Your task to perform on an android device: turn notification dots off Image 0: 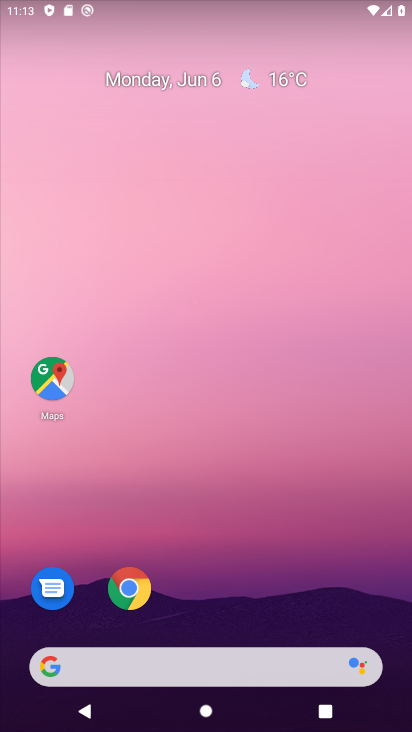
Step 0: drag from (268, 588) to (279, 7)
Your task to perform on an android device: turn notification dots off Image 1: 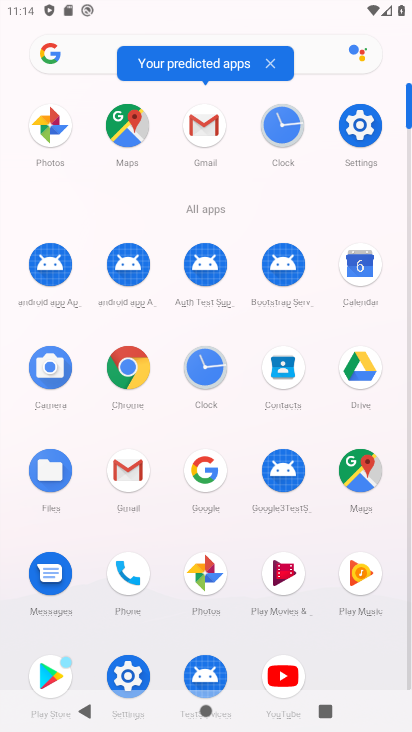
Step 1: click (362, 124)
Your task to perform on an android device: turn notification dots off Image 2: 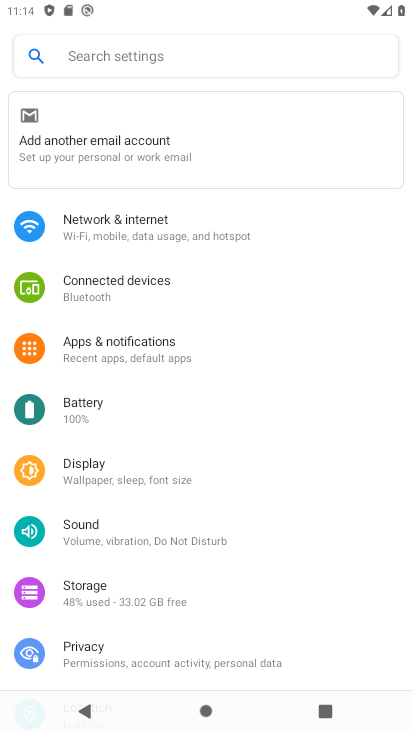
Step 2: click (166, 352)
Your task to perform on an android device: turn notification dots off Image 3: 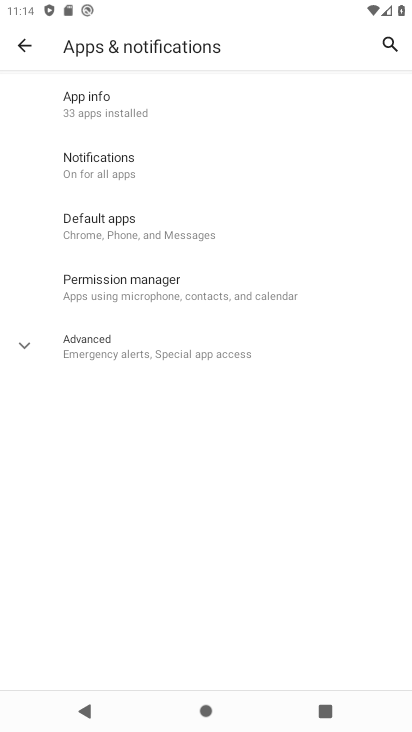
Step 3: click (117, 156)
Your task to perform on an android device: turn notification dots off Image 4: 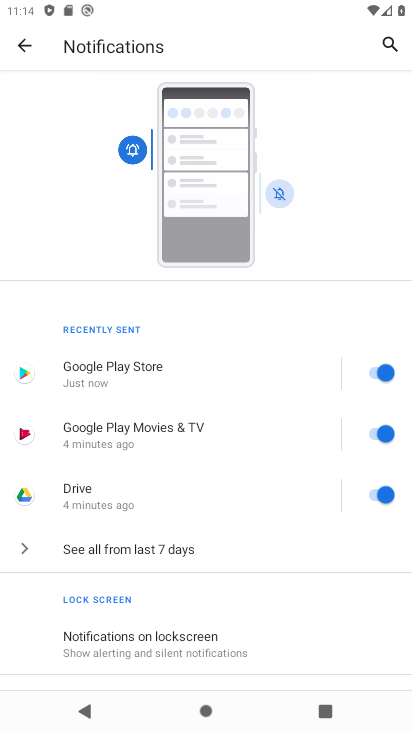
Step 4: drag from (216, 604) to (221, 346)
Your task to perform on an android device: turn notification dots off Image 5: 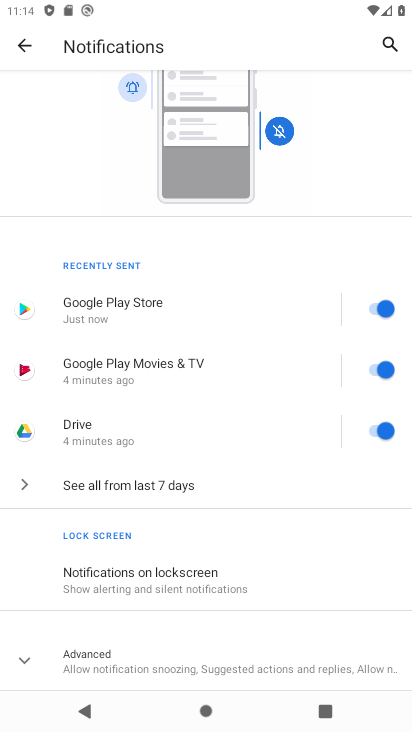
Step 5: click (224, 666)
Your task to perform on an android device: turn notification dots off Image 6: 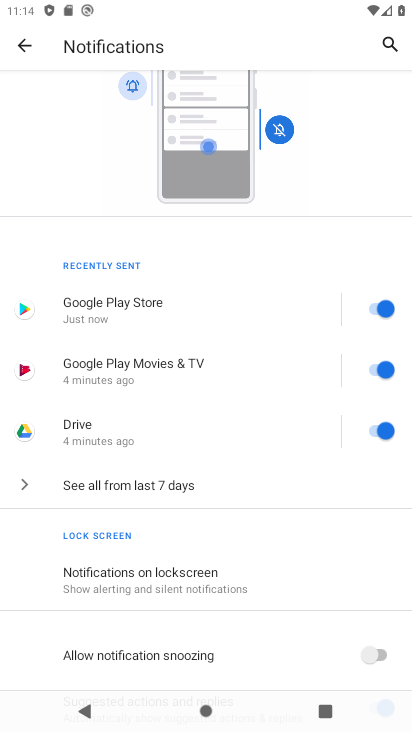
Step 6: drag from (245, 646) to (250, 501)
Your task to perform on an android device: turn notification dots off Image 7: 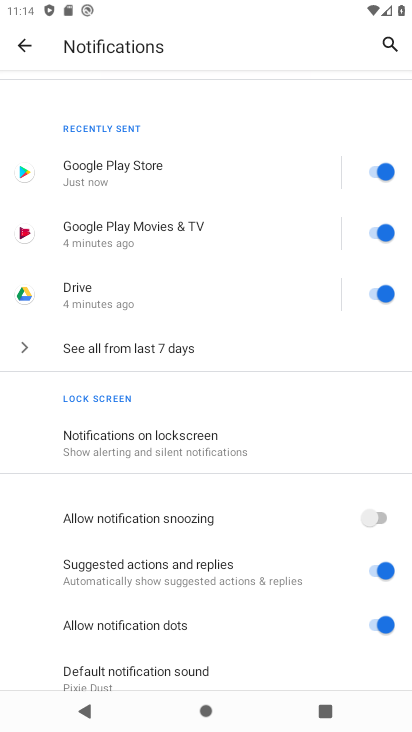
Step 7: drag from (269, 643) to (294, 541)
Your task to perform on an android device: turn notification dots off Image 8: 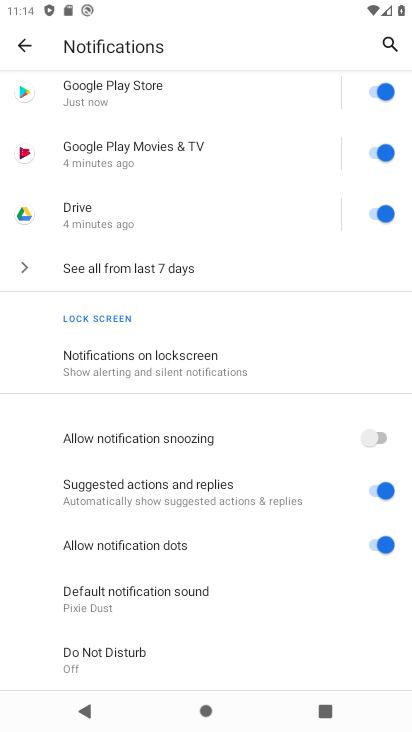
Step 8: click (376, 545)
Your task to perform on an android device: turn notification dots off Image 9: 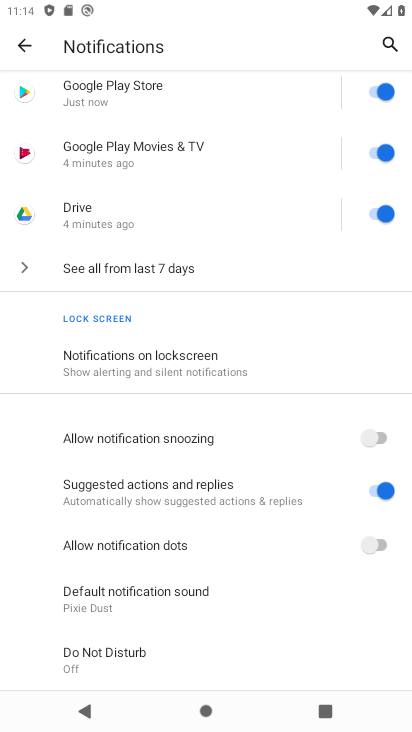
Step 9: task complete